Your task to perform on an android device: Open Chrome and go to the settings page Image 0: 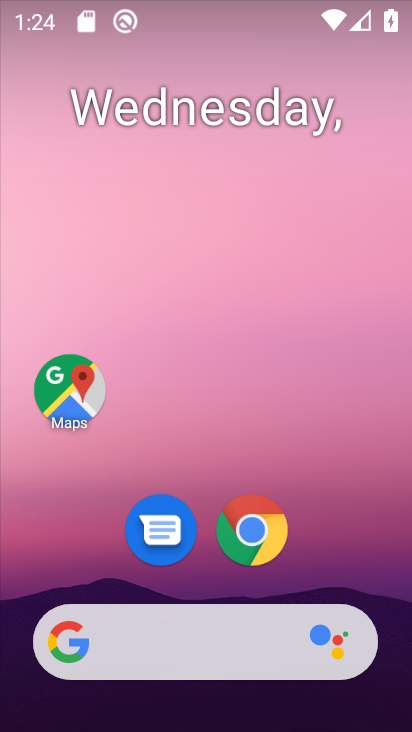
Step 0: click (266, 540)
Your task to perform on an android device: Open Chrome and go to the settings page Image 1: 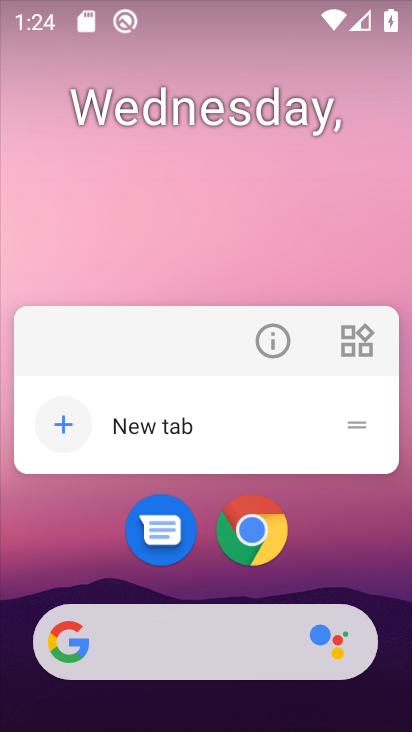
Step 1: click (252, 544)
Your task to perform on an android device: Open Chrome and go to the settings page Image 2: 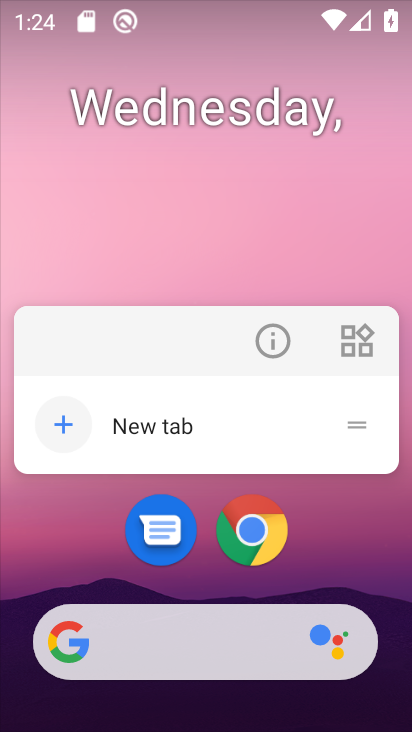
Step 2: click (254, 539)
Your task to perform on an android device: Open Chrome and go to the settings page Image 3: 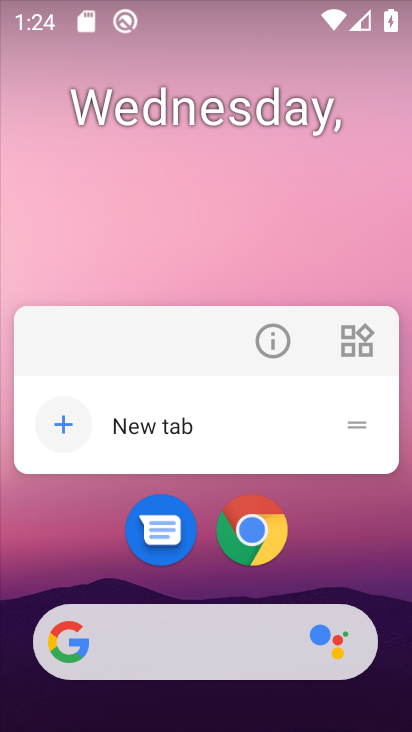
Step 3: click (249, 531)
Your task to perform on an android device: Open Chrome and go to the settings page Image 4: 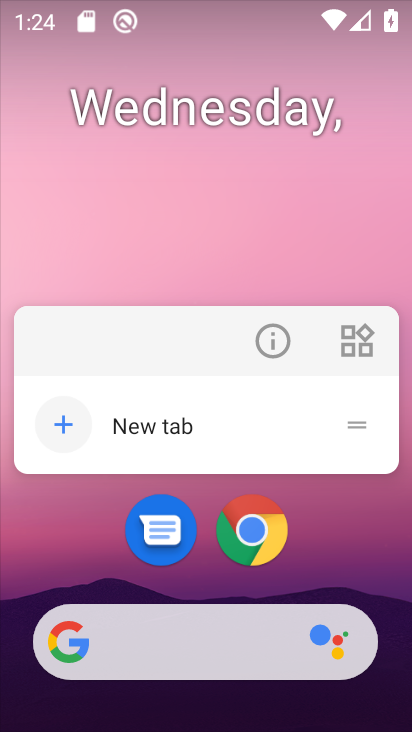
Step 4: click (246, 548)
Your task to perform on an android device: Open Chrome and go to the settings page Image 5: 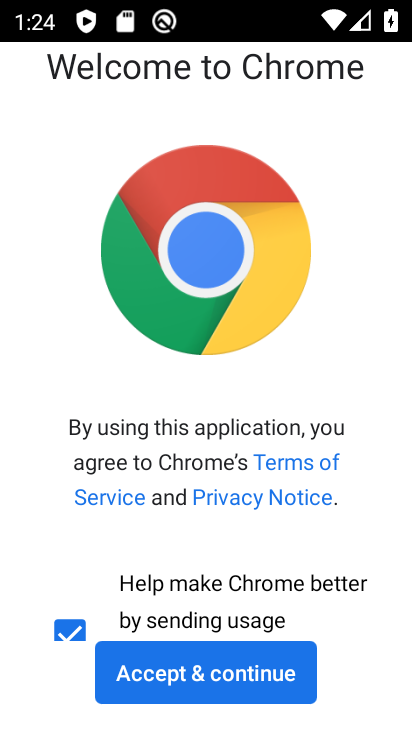
Step 5: click (251, 672)
Your task to perform on an android device: Open Chrome and go to the settings page Image 6: 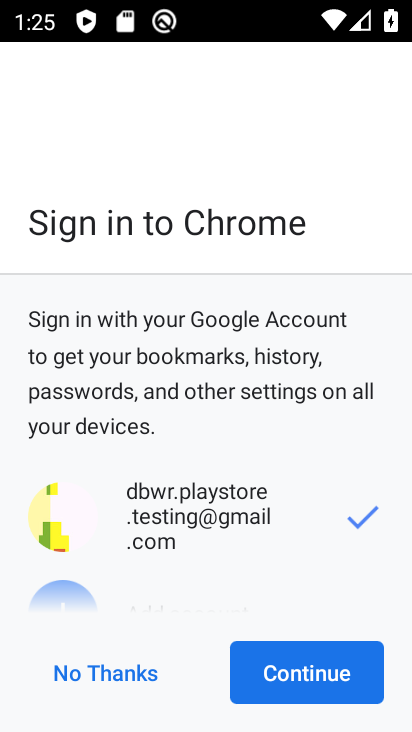
Step 6: click (315, 673)
Your task to perform on an android device: Open Chrome and go to the settings page Image 7: 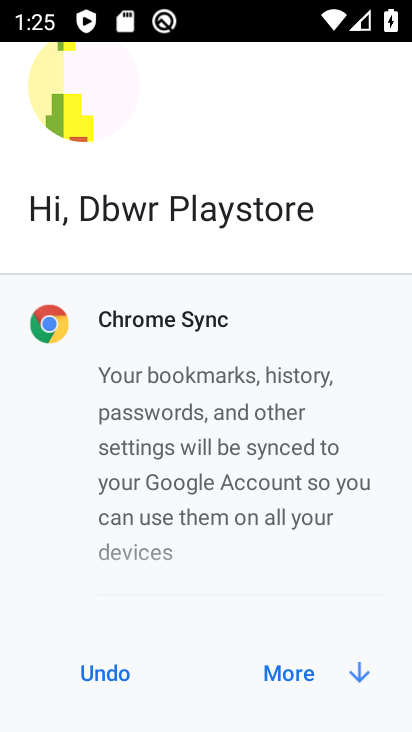
Step 7: click (313, 673)
Your task to perform on an android device: Open Chrome and go to the settings page Image 8: 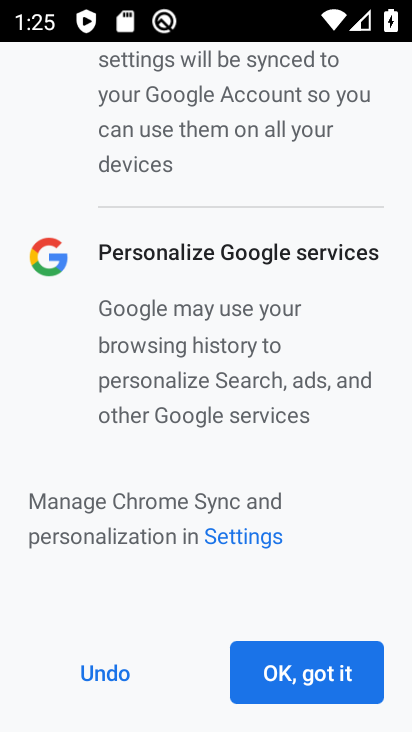
Step 8: click (267, 680)
Your task to perform on an android device: Open Chrome and go to the settings page Image 9: 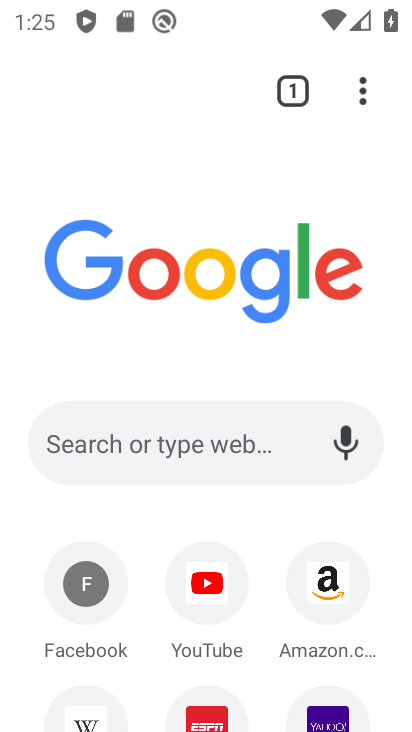
Step 9: task complete